Your task to perform on an android device: empty trash in the gmail app Image 0: 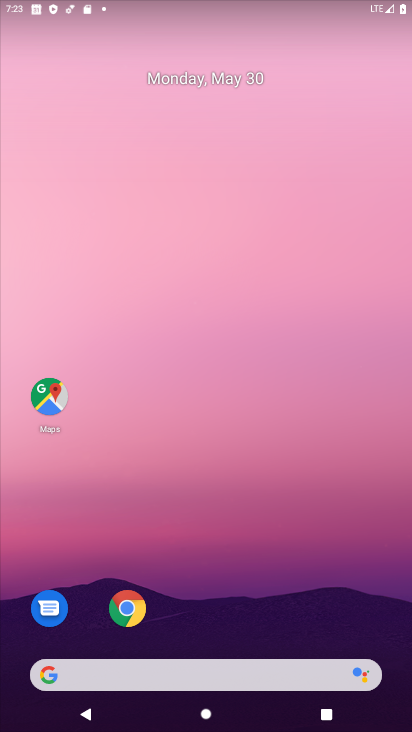
Step 0: drag from (217, 598) to (260, 254)
Your task to perform on an android device: empty trash in the gmail app Image 1: 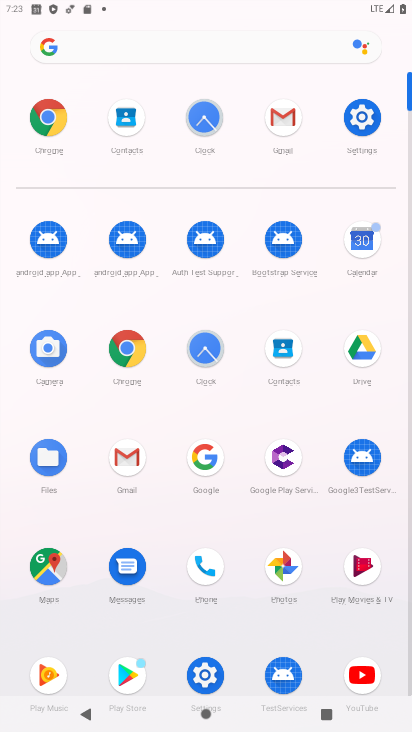
Step 1: click (136, 469)
Your task to perform on an android device: empty trash in the gmail app Image 2: 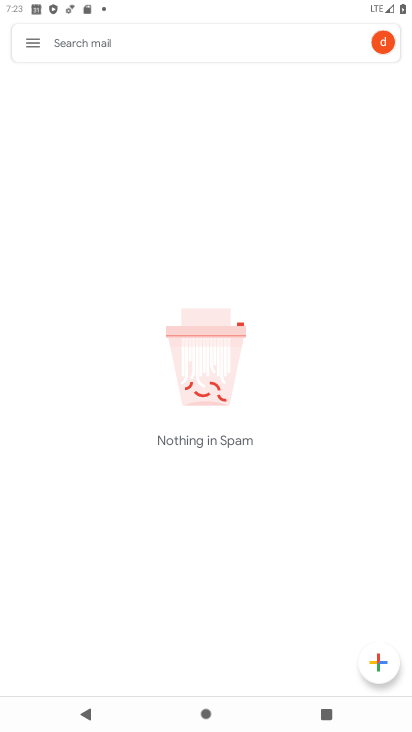
Step 2: click (37, 44)
Your task to perform on an android device: empty trash in the gmail app Image 3: 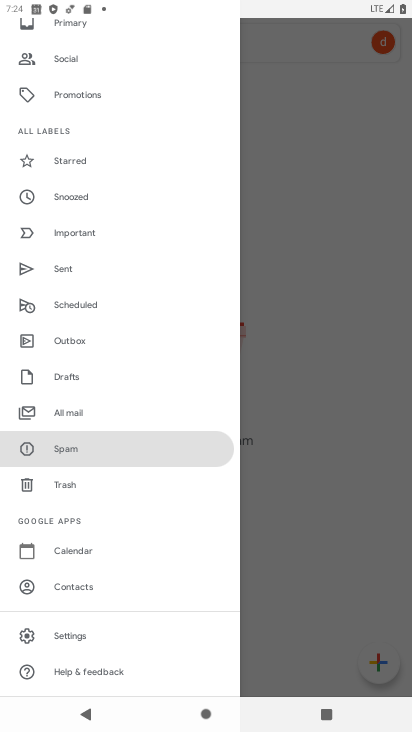
Step 3: click (68, 488)
Your task to perform on an android device: empty trash in the gmail app Image 4: 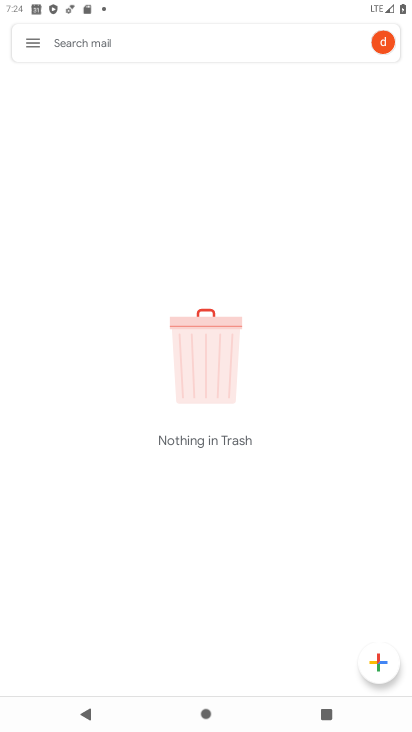
Step 4: task complete